Your task to perform on an android device: toggle notification dots Image 0: 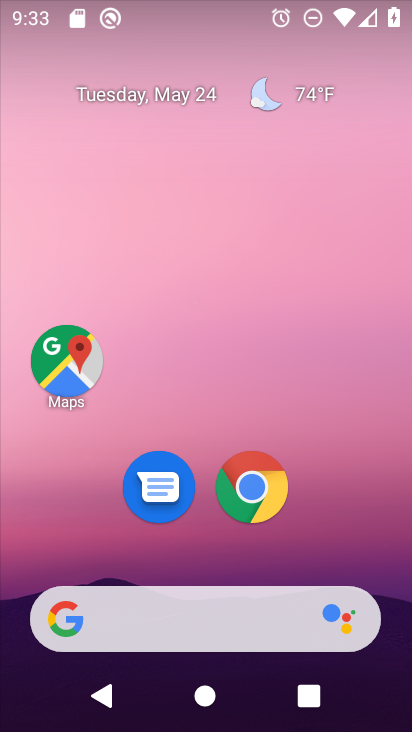
Step 0: drag from (376, 591) to (403, 7)
Your task to perform on an android device: toggle notification dots Image 1: 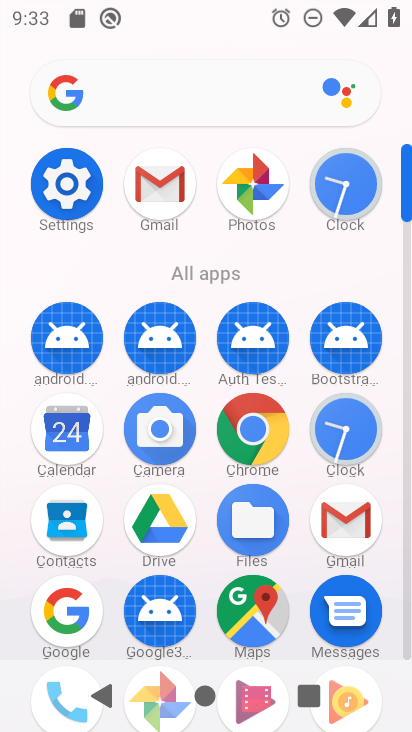
Step 1: click (54, 192)
Your task to perform on an android device: toggle notification dots Image 2: 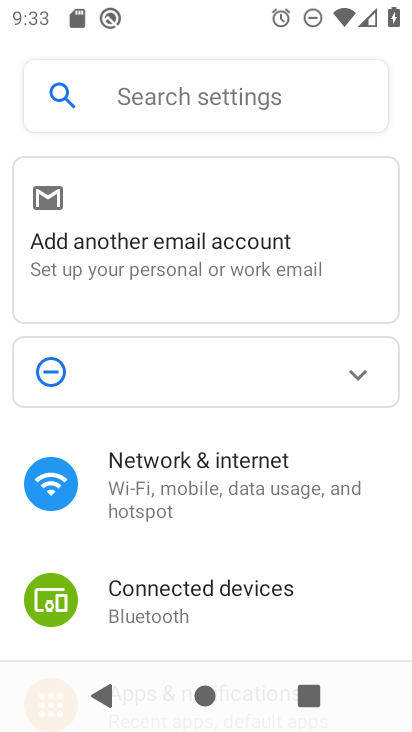
Step 2: drag from (335, 592) to (340, 288)
Your task to perform on an android device: toggle notification dots Image 3: 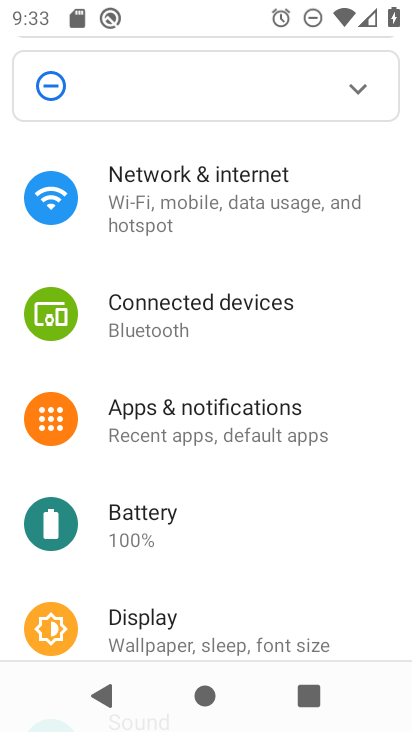
Step 3: click (174, 429)
Your task to perform on an android device: toggle notification dots Image 4: 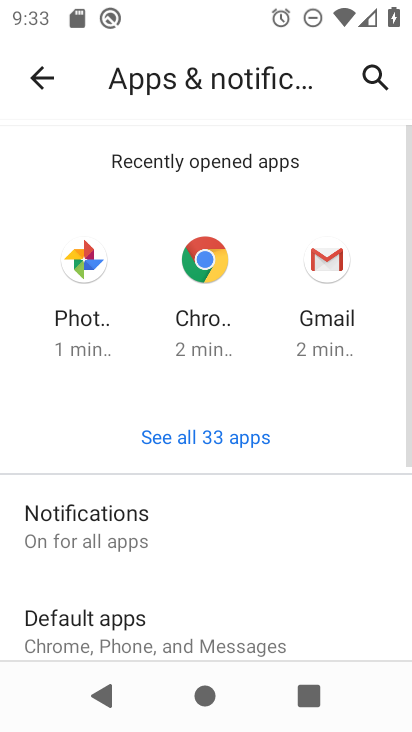
Step 4: click (110, 531)
Your task to perform on an android device: toggle notification dots Image 5: 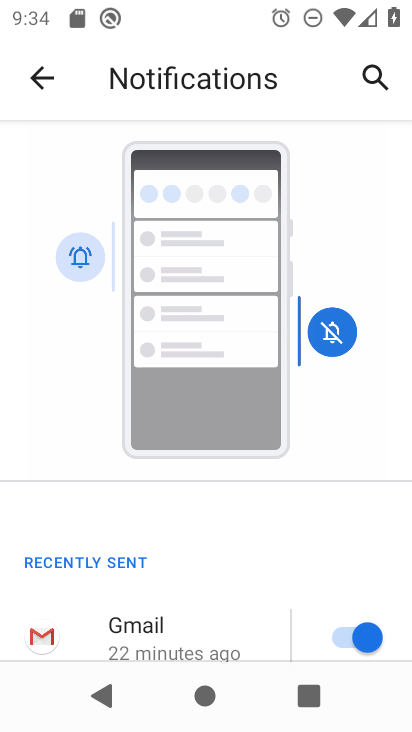
Step 5: drag from (236, 538) to (252, 53)
Your task to perform on an android device: toggle notification dots Image 6: 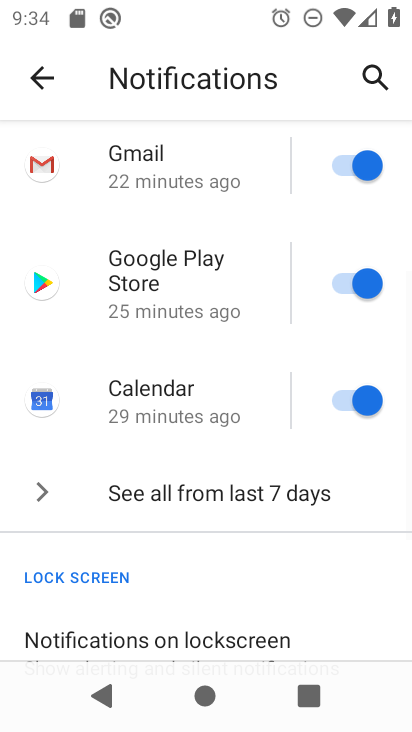
Step 6: drag from (206, 539) to (217, 84)
Your task to perform on an android device: toggle notification dots Image 7: 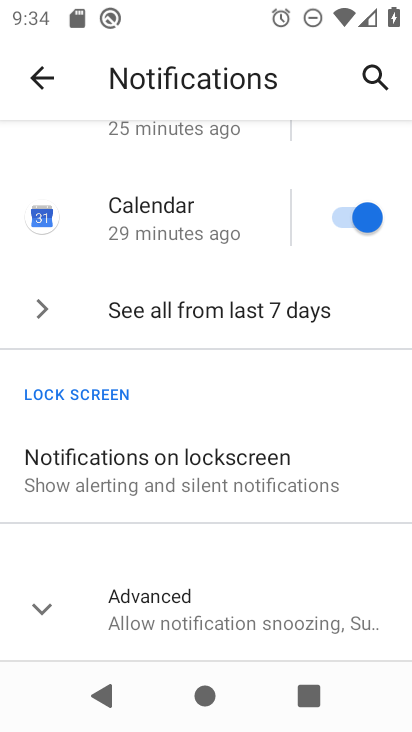
Step 7: click (38, 617)
Your task to perform on an android device: toggle notification dots Image 8: 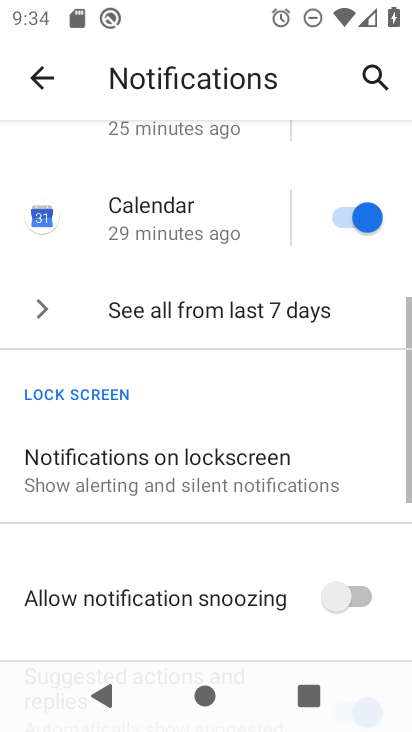
Step 8: drag from (205, 615) to (209, 119)
Your task to perform on an android device: toggle notification dots Image 9: 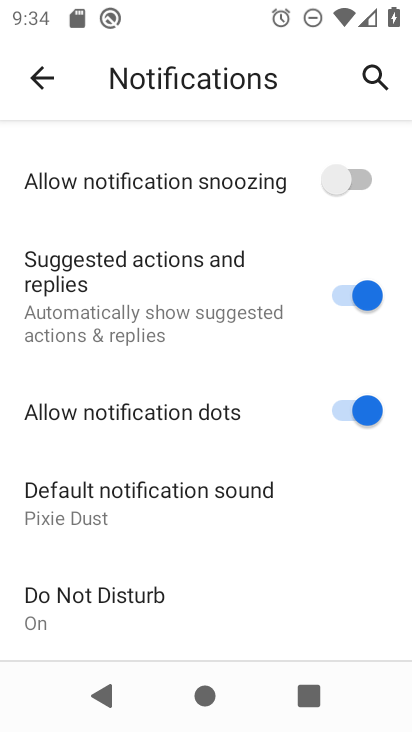
Step 9: click (362, 413)
Your task to perform on an android device: toggle notification dots Image 10: 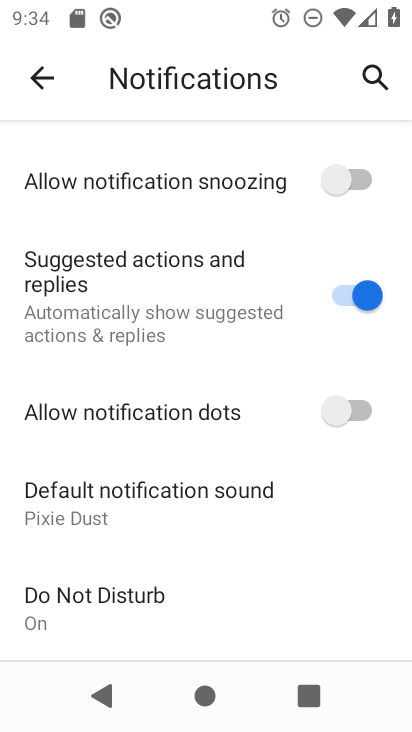
Step 10: task complete